Your task to perform on an android device: toggle sleep mode Image 0: 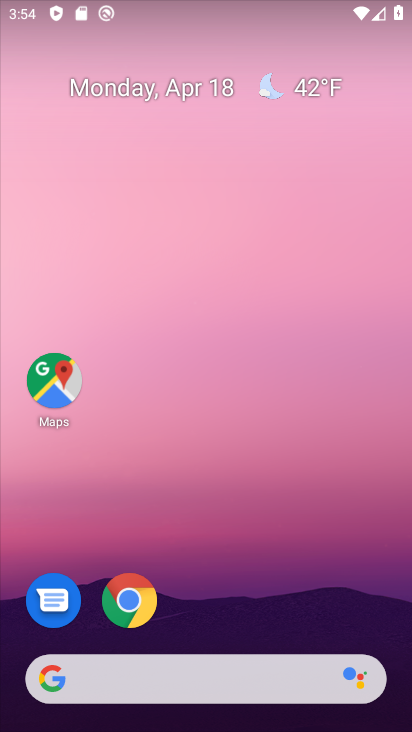
Step 0: drag from (197, 654) to (300, 144)
Your task to perform on an android device: toggle sleep mode Image 1: 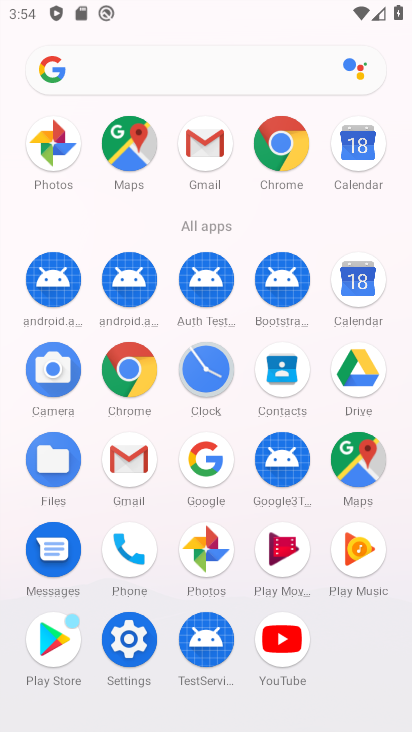
Step 1: click (124, 648)
Your task to perform on an android device: toggle sleep mode Image 2: 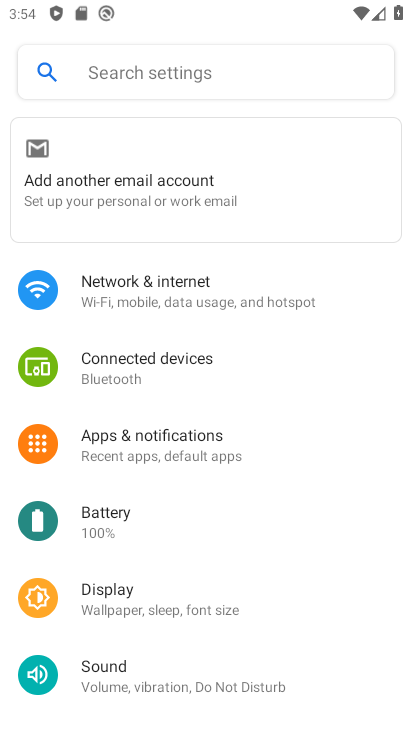
Step 2: click (161, 603)
Your task to perform on an android device: toggle sleep mode Image 3: 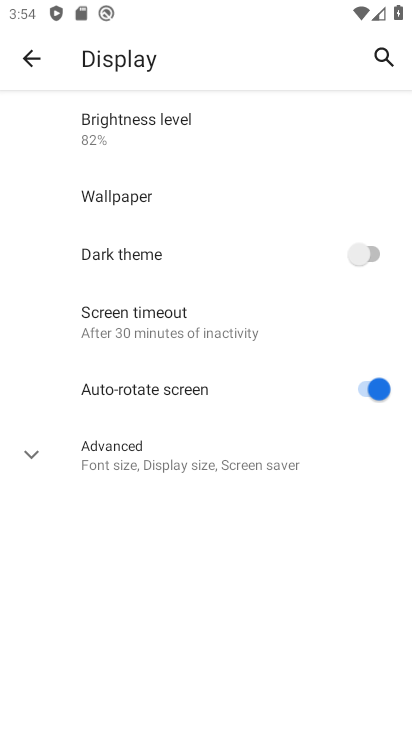
Step 3: click (149, 452)
Your task to perform on an android device: toggle sleep mode Image 4: 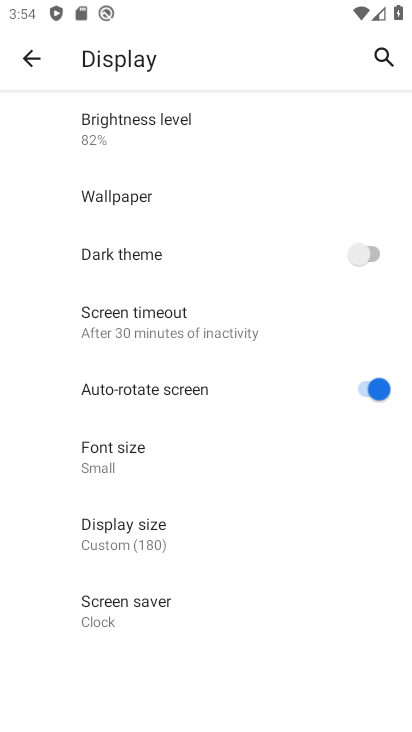
Step 4: task complete